Your task to perform on an android device: Open location settings Image 0: 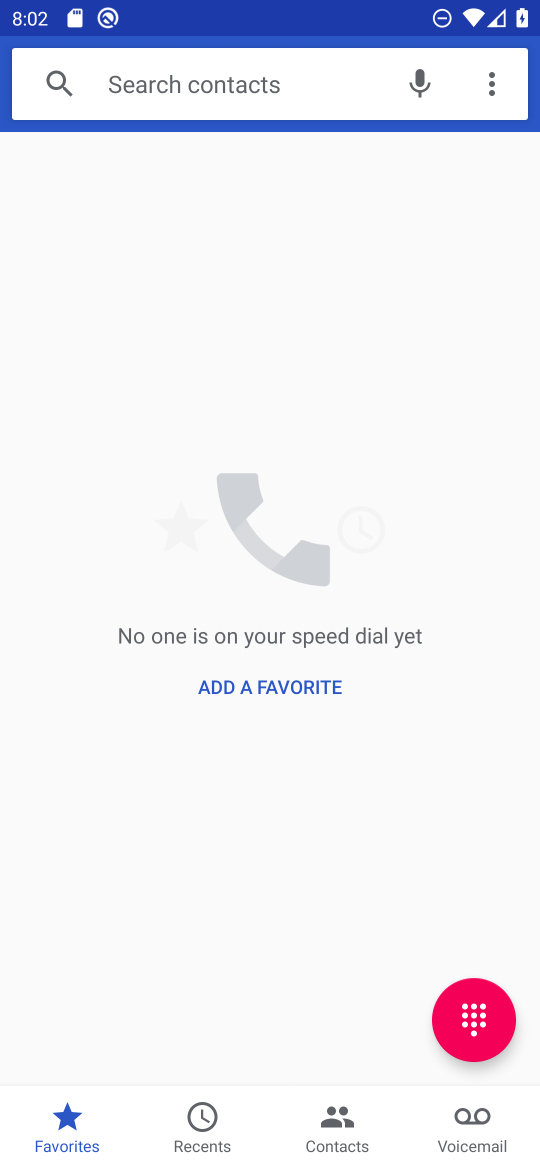
Step 0: press home button
Your task to perform on an android device: Open location settings Image 1: 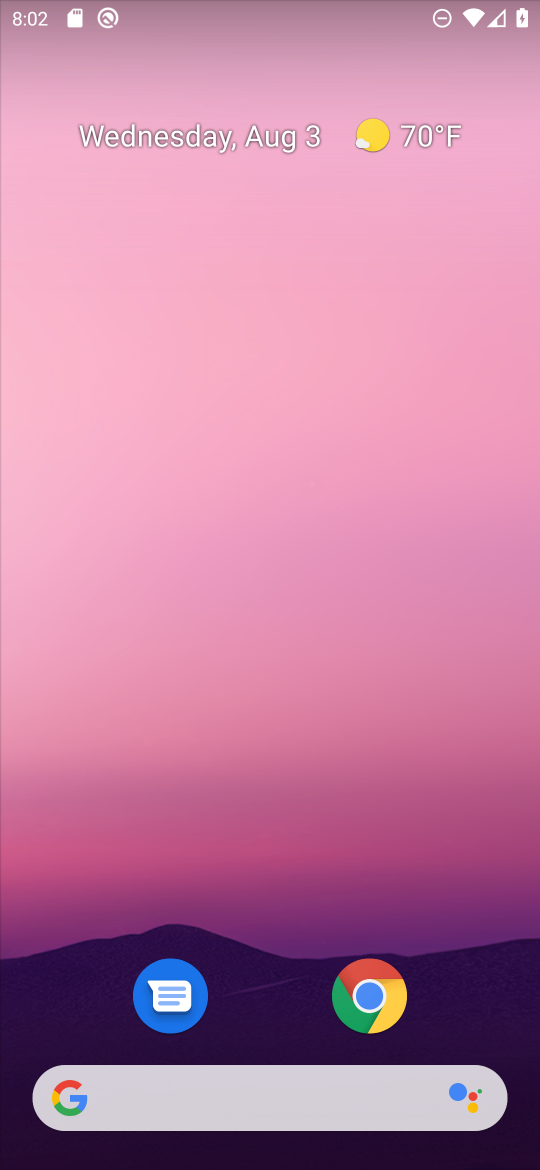
Step 1: drag from (276, 918) to (297, 8)
Your task to perform on an android device: Open location settings Image 2: 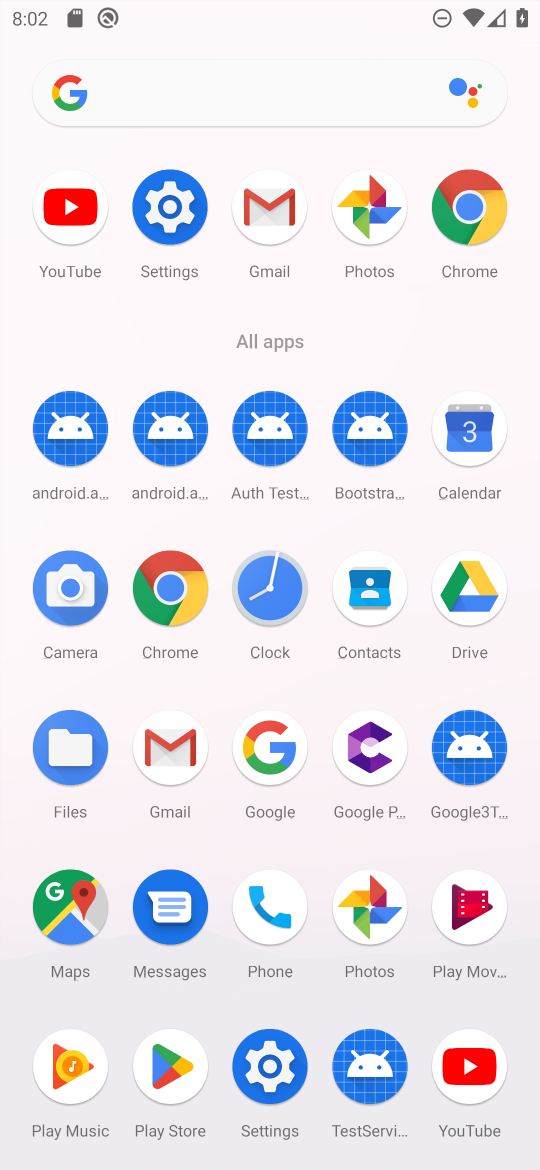
Step 2: click (172, 214)
Your task to perform on an android device: Open location settings Image 3: 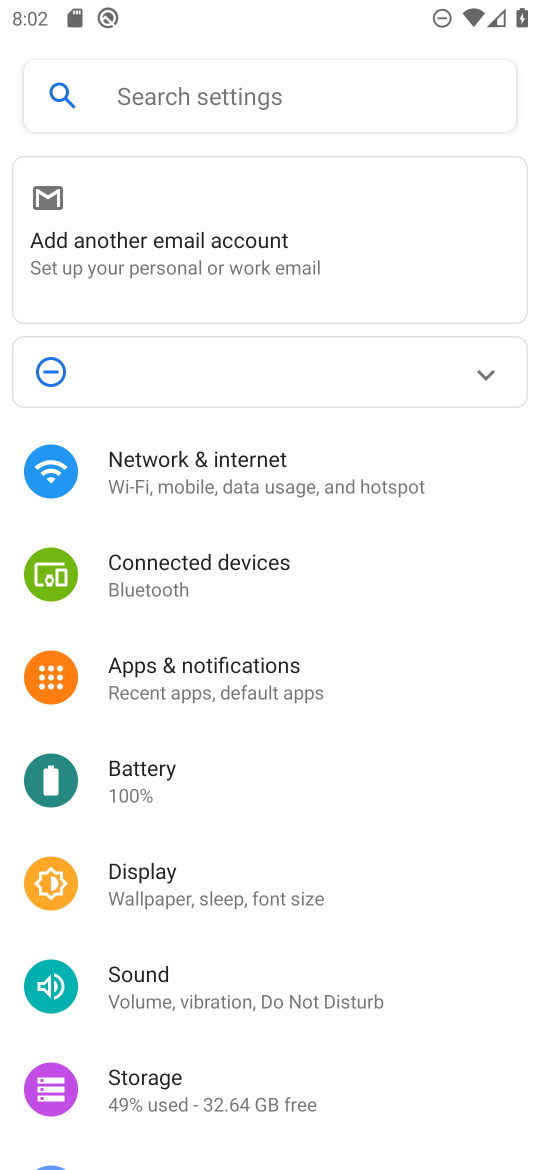
Step 3: drag from (400, 871) to (359, 268)
Your task to perform on an android device: Open location settings Image 4: 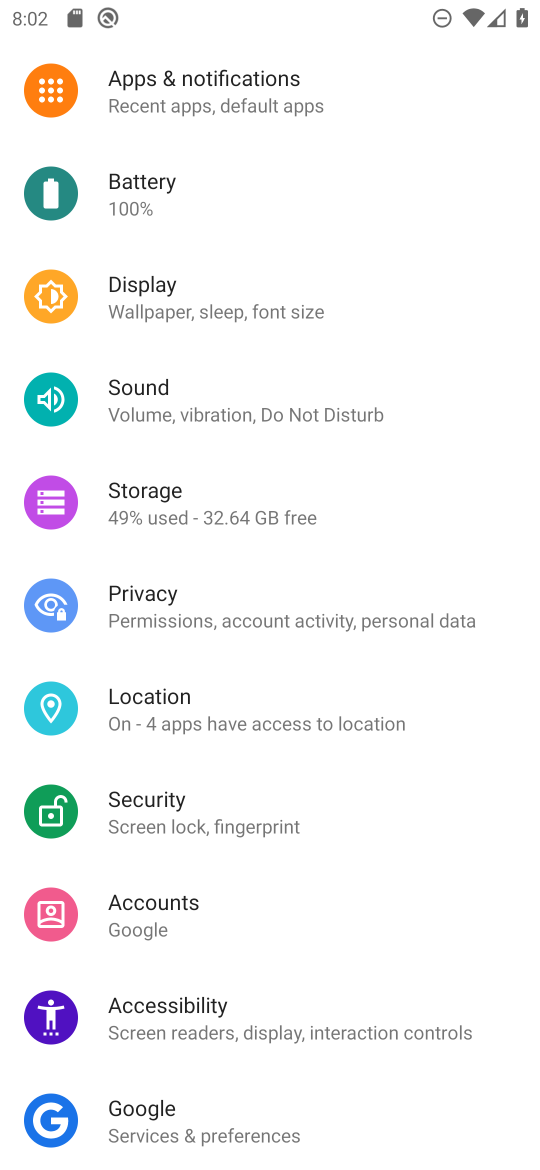
Step 4: click (218, 716)
Your task to perform on an android device: Open location settings Image 5: 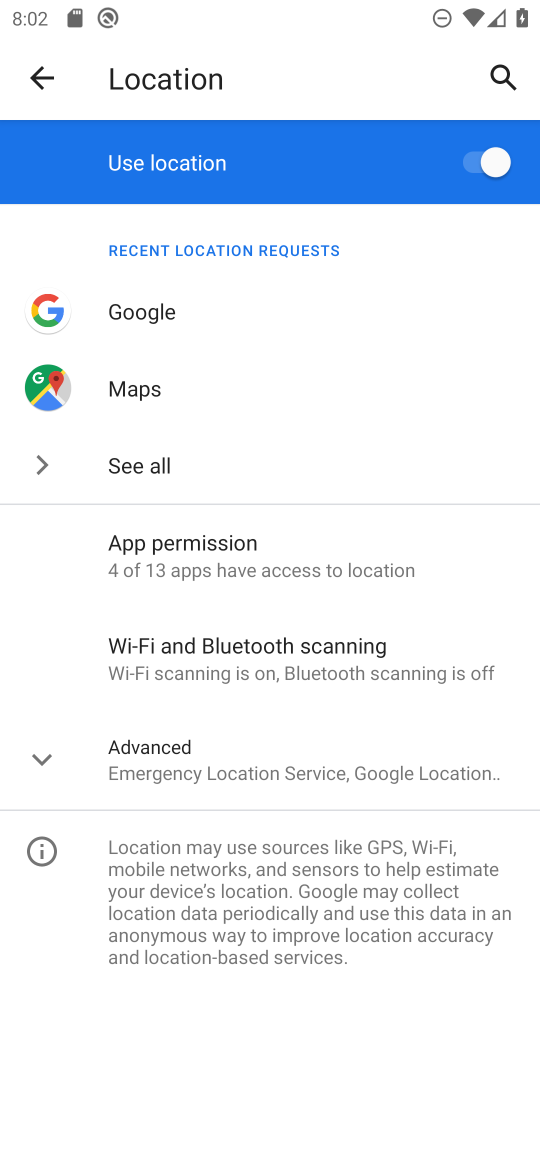
Step 5: task complete